Your task to perform on an android device: Search for pizza restaurants on Maps Image 0: 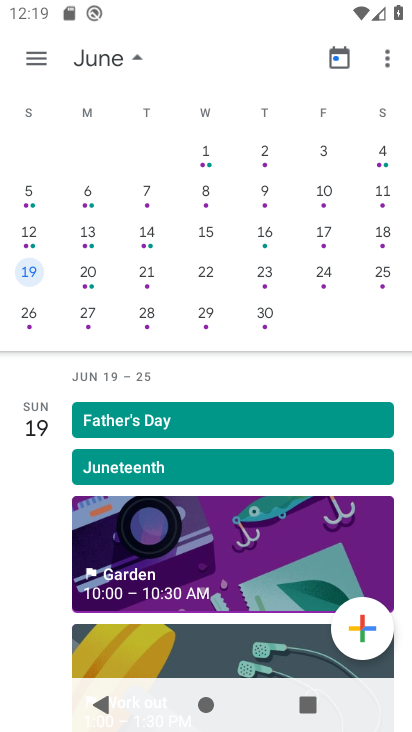
Step 0: press home button
Your task to perform on an android device: Search for pizza restaurants on Maps Image 1: 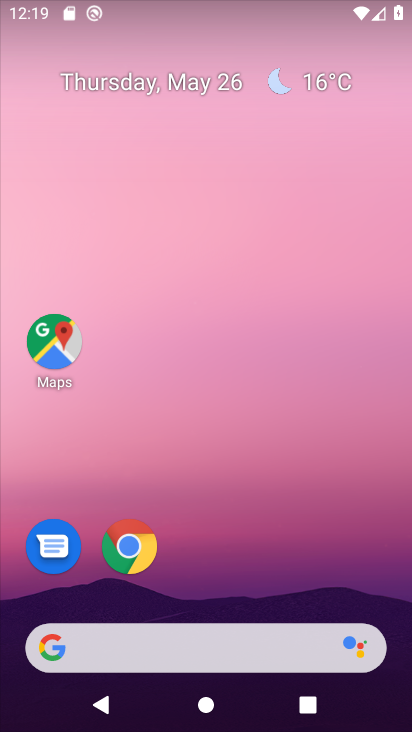
Step 1: click (229, 205)
Your task to perform on an android device: Search for pizza restaurants on Maps Image 2: 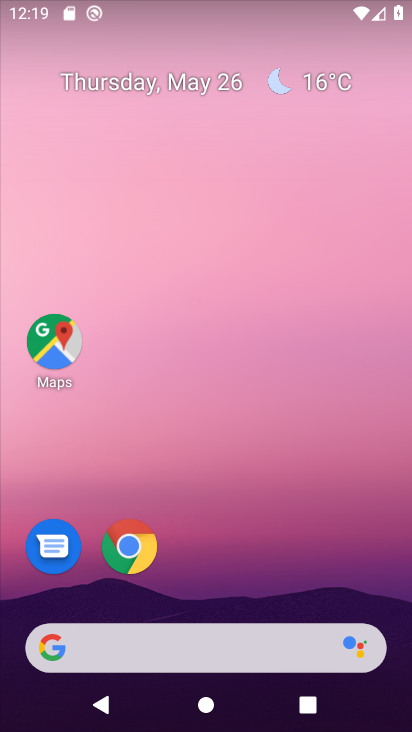
Step 2: drag from (231, 447) to (325, 208)
Your task to perform on an android device: Search for pizza restaurants on Maps Image 3: 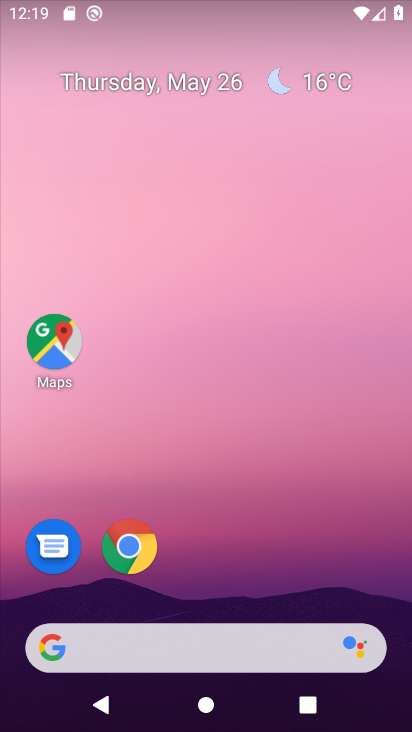
Step 3: drag from (177, 595) to (206, 166)
Your task to perform on an android device: Search for pizza restaurants on Maps Image 4: 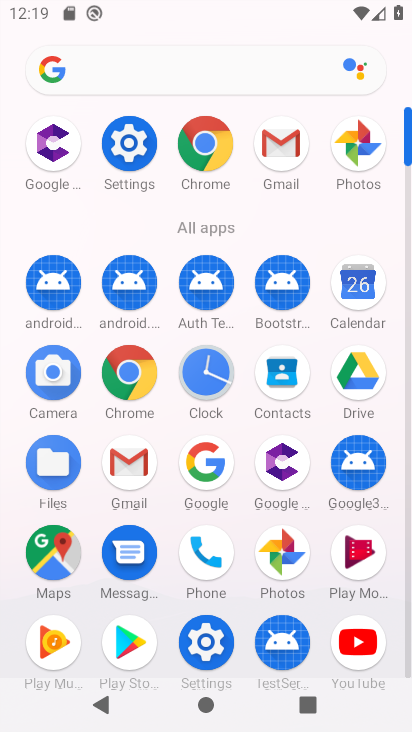
Step 4: drag from (167, 621) to (222, 268)
Your task to perform on an android device: Search for pizza restaurants on Maps Image 5: 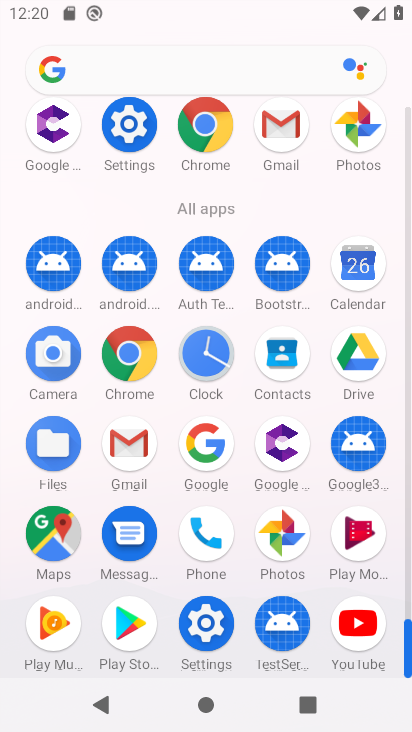
Step 5: click (33, 522)
Your task to perform on an android device: Search for pizza restaurants on Maps Image 6: 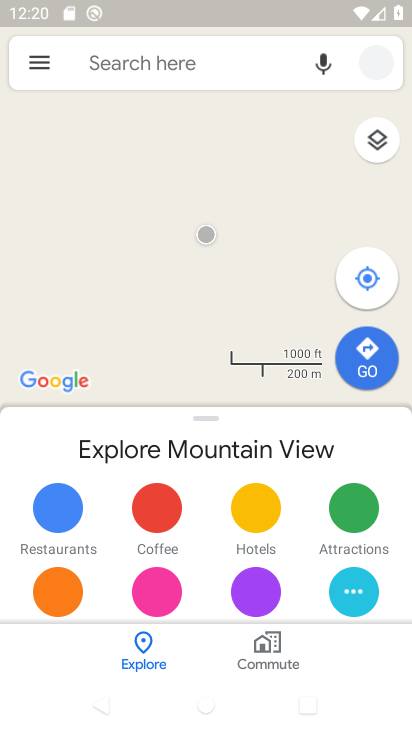
Step 6: click (101, 57)
Your task to perform on an android device: Search for pizza restaurants on Maps Image 7: 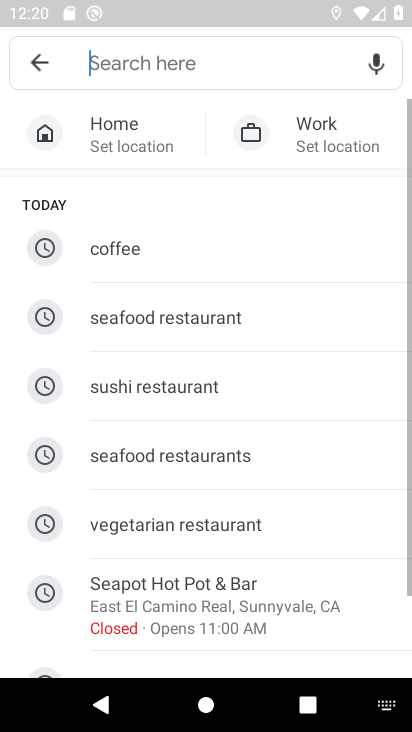
Step 7: type "Pizza restaurants"
Your task to perform on an android device: Search for pizza restaurants on Maps Image 8: 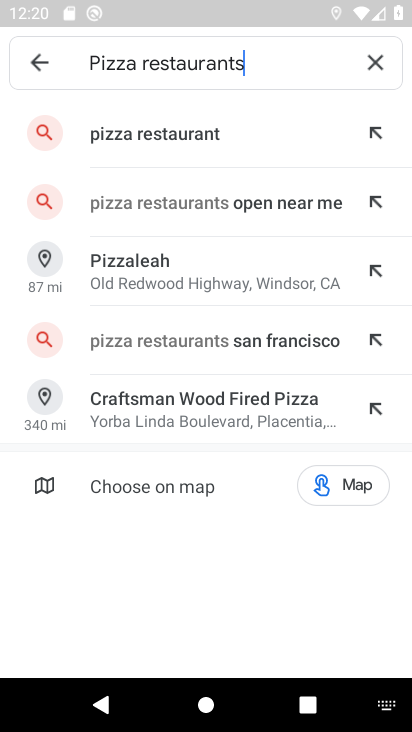
Step 8: click (136, 137)
Your task to perform on an android device: Search for pizza restaurants on Maps Image 9: 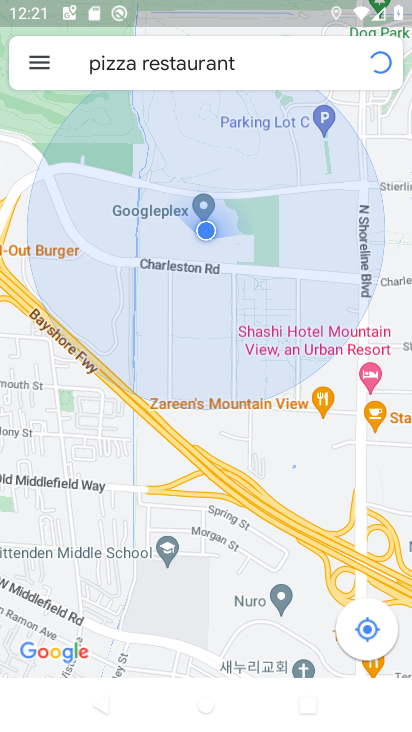
Step 9: task complete